Your task to perform on an android device: turn on showing notifications on the lock screen Image 0: 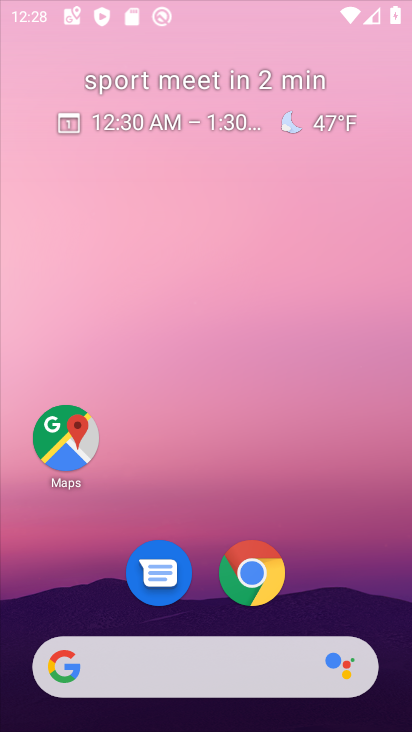
Step 0: drag from (195, 587) to (206, 316)
Your task to perform on an android device: turn on showing notifications on the lock screen Image 1: 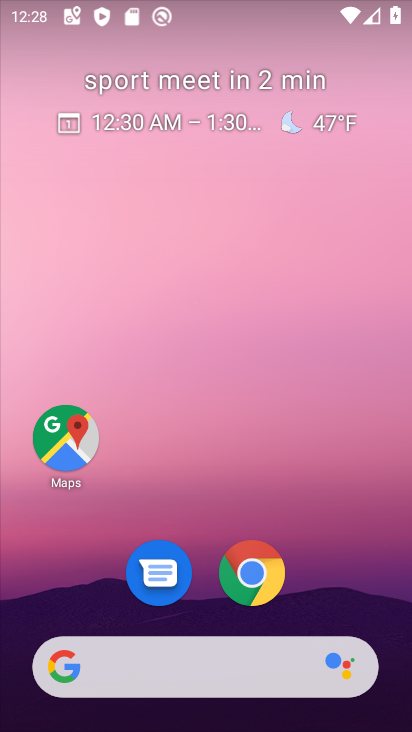
Step 1: drag from (210, 605) to (154, 309)
Your task to perform on an android device: turn on showing notifications on the lock screen Image 2: 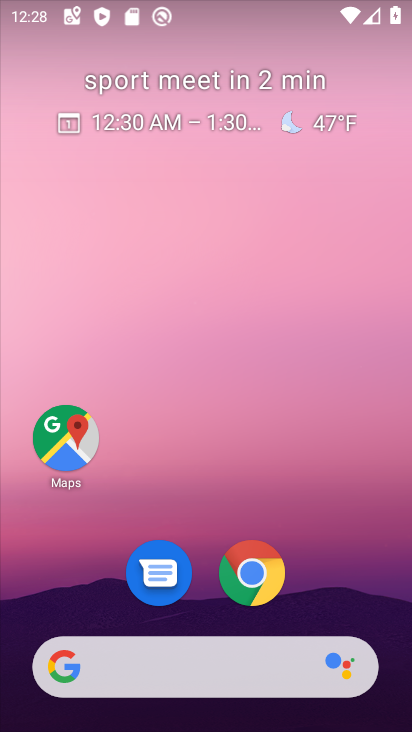
Step 2: drag from (202, 603) to (225, 251)
Your task to perform on an android device: turn on showing notifications on the lock screen Image 3: 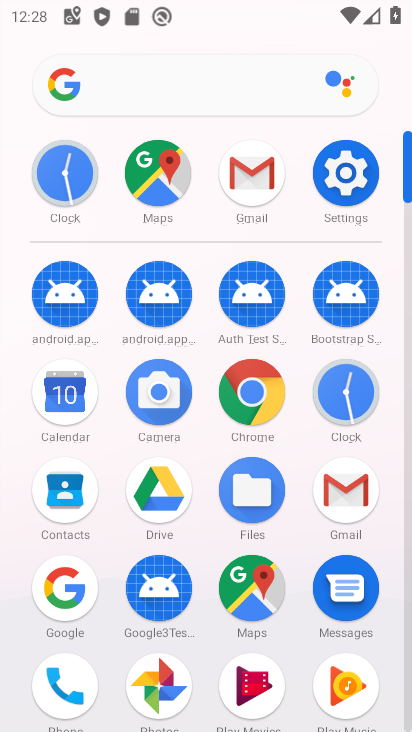
Step 3: click (353, 154)
Your task to perform on an android device: turn on showing notifications on the lock screen Image 4: 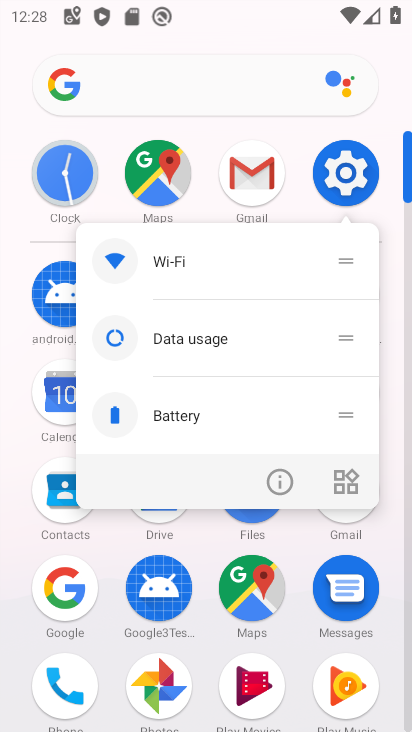
Step 4: click (279, 480)
Your task to perform on an android device: turn on showing notifications on the lock screen Image 5: 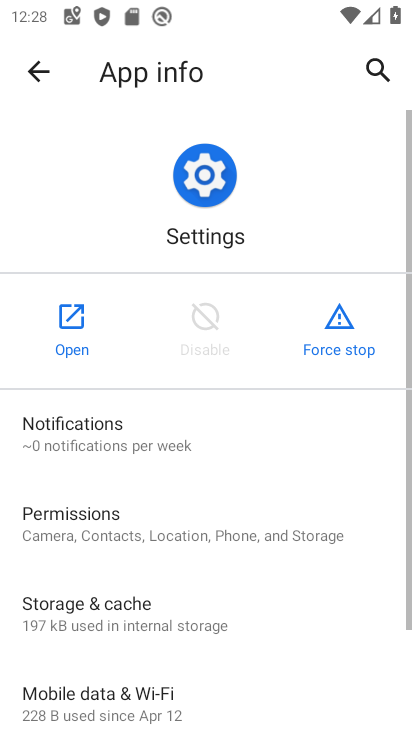
Step 5: click (100, 326)
Your task to perform on an android device: turn on showing notifications on the lock screen Image 6: 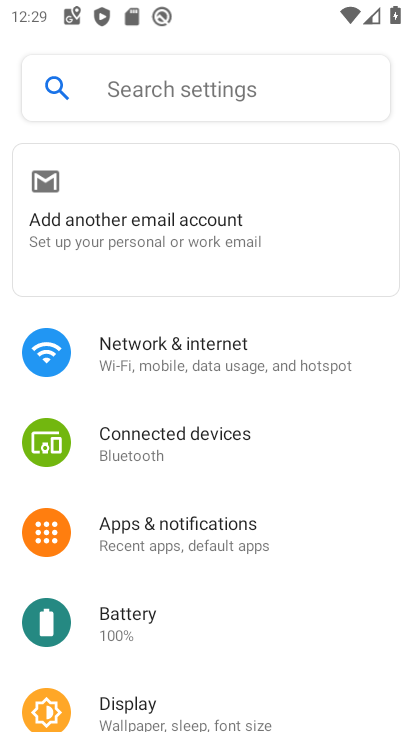
Step 6: drag from (258, 638) to (328, 237)
Your task to perform on an android device: turn on showing notifications on the lock screen Image 7: 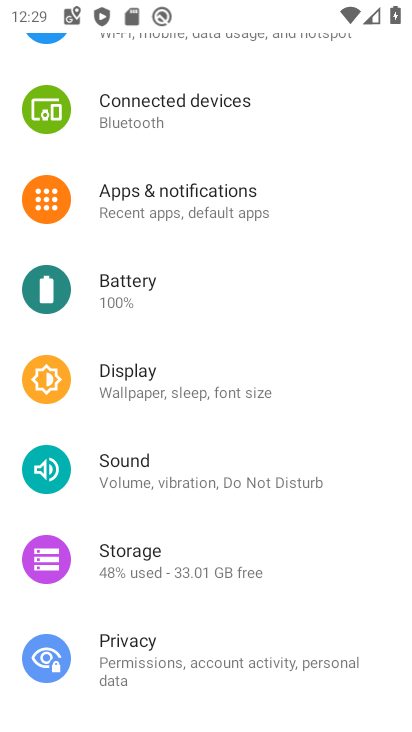
Step 7: click (220, 213)
Your task to perform on an android device: turn on showing notifications on the lock screen Image 8: 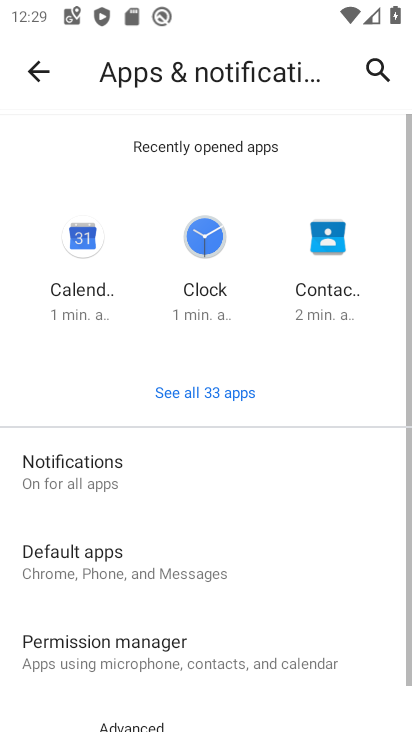
Step 8: click (150, 487)
Your task to perform on an android device: turn on showing notifications on the lock screen Image 9: 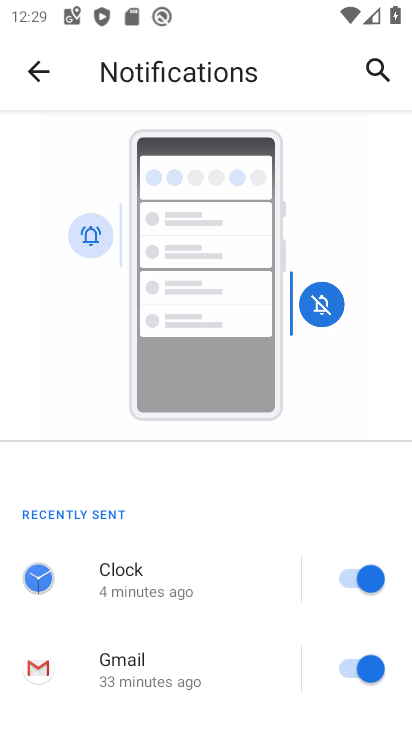
Step 9: drag from (265, 546) to (314, 264)
Your task to perform on an android device: turn on showing notifications on the lock screen Image 10: 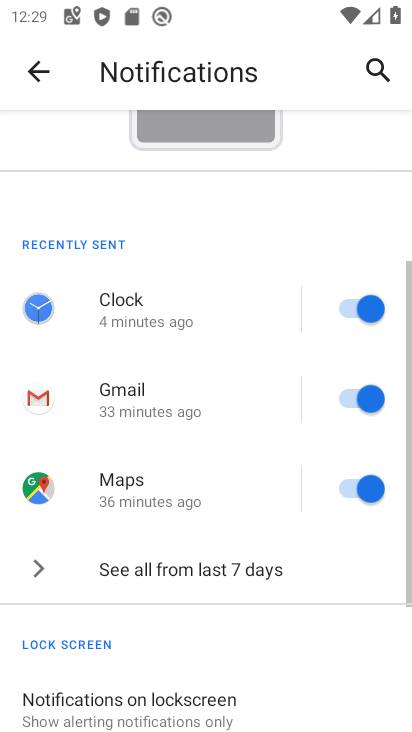
Step 10: drag from (186, 559) to (232, 161)
Your task to perform on an android device: turn on showing notifications on the lock screen Image 11: 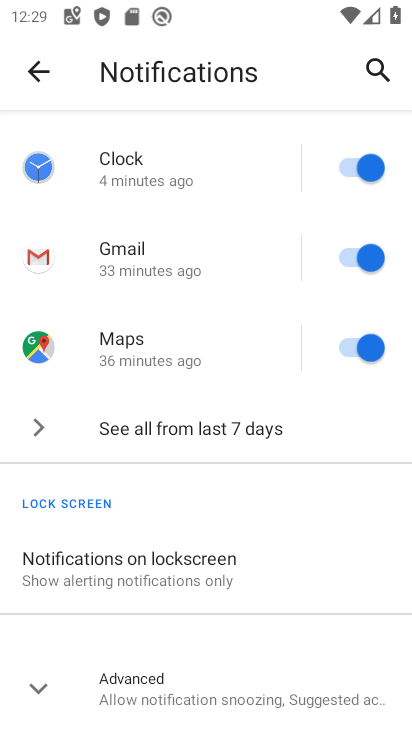
Step 11: click (91, 569)
Your task to perform on an android device: turn on showing notifications on the lock screen Image 12: 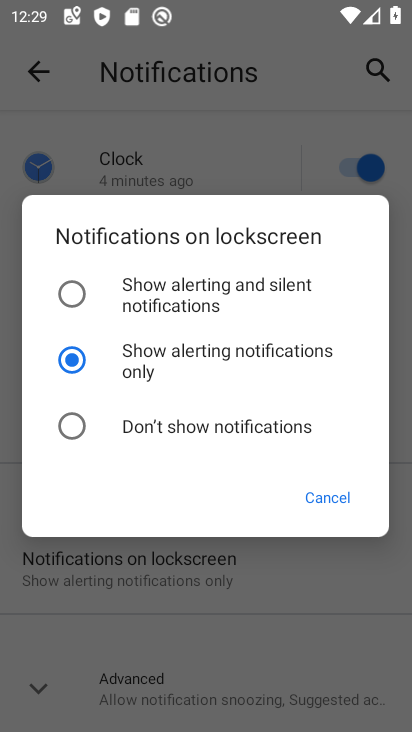
Step 12: task complete